Your task to perform on an android device: Open notification settings Image 0: 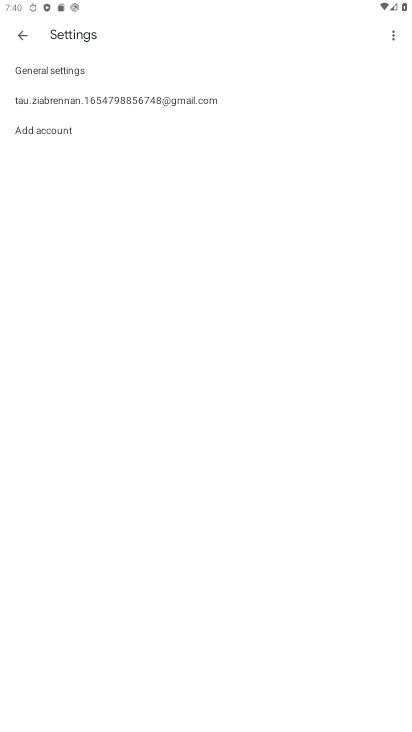
Step 0: press home button
Your task to perform on an android device: Open notification settings Image 1: 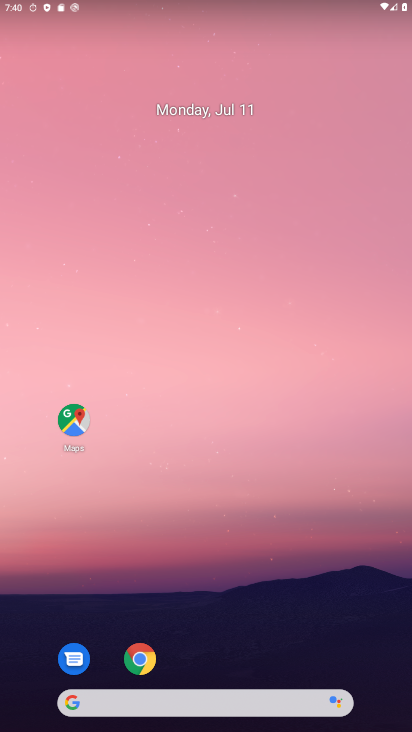
Step 1: drag from (302, 660) to (329, 10)
Your task to perform on an android device: Open notification settings Image 2: 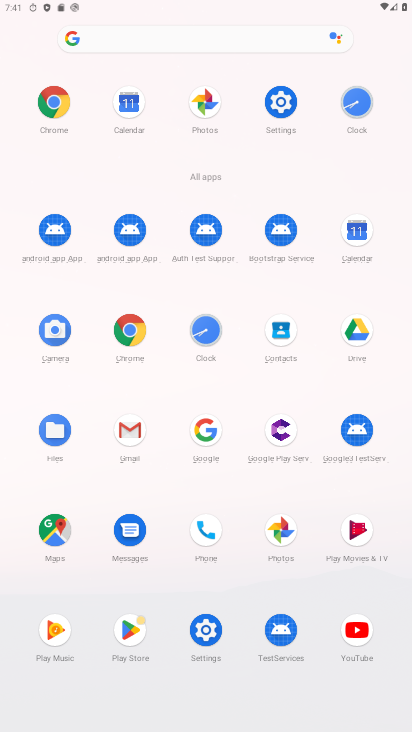
Step 2: click (274, 125)
Your task to perform on an android device: Open notification settings Image 3: 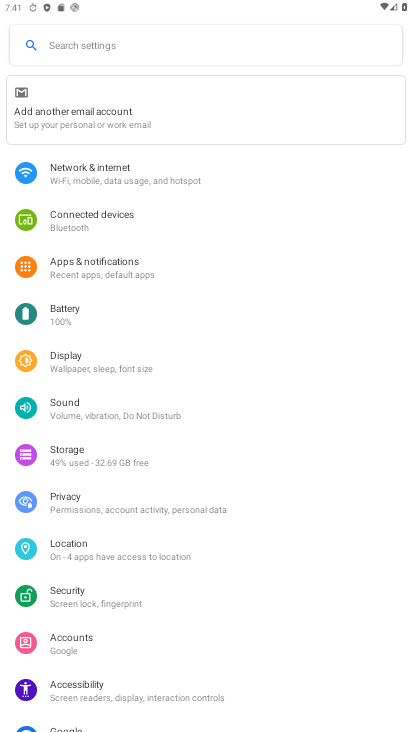
Step 3: click (83, 274)
Your task to perform on an android device: Open notification settings Image 4: 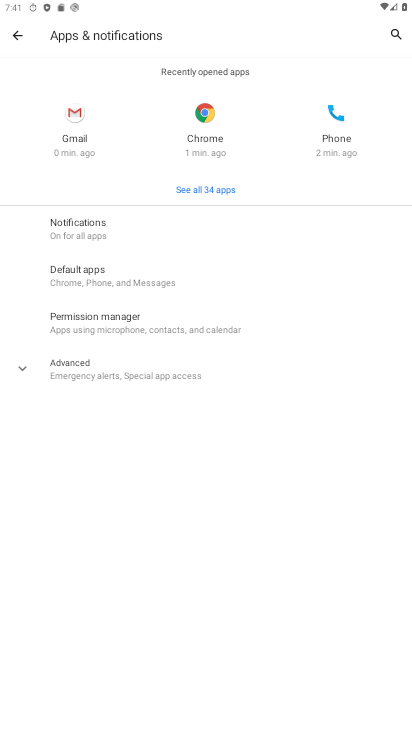
Step 4: click (78, 222)
Your task to perform on an android device: Open notification settings Image 5: 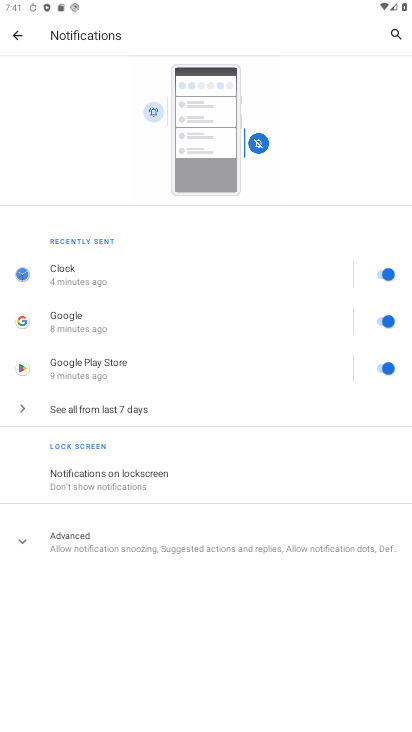
Step 5: task complete